Your task to perform on an android device: snooze an email in the gmail app Image 0: 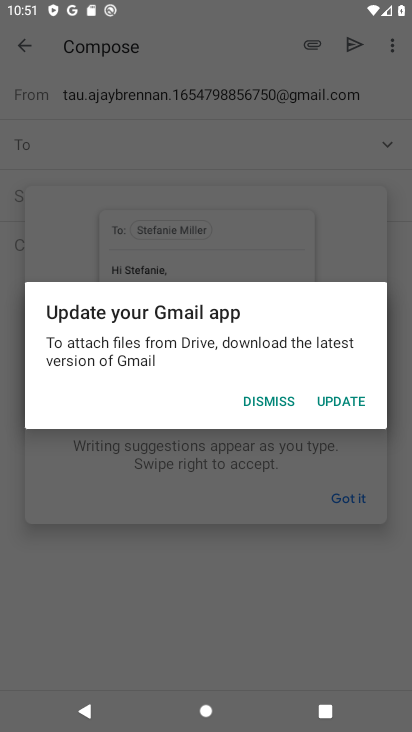
Step 0: press home button
Your task to perform on an android device: snooze an email in the gmail app Image 1: 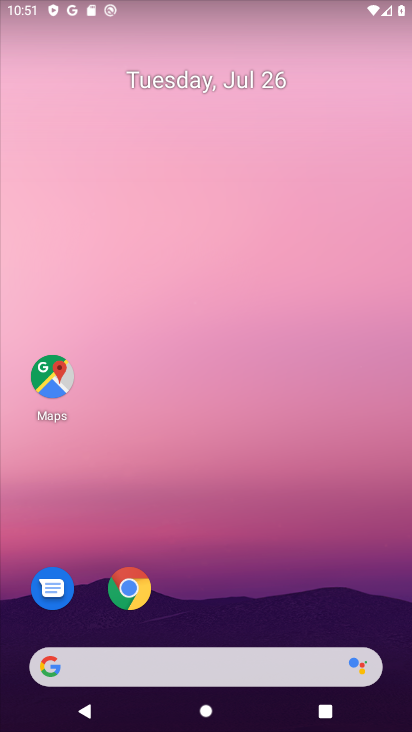
Step 1: drag from (222, 607) to (238, 1)
Your task to perform on an android device: snooze an email in the gmail app Image 2: 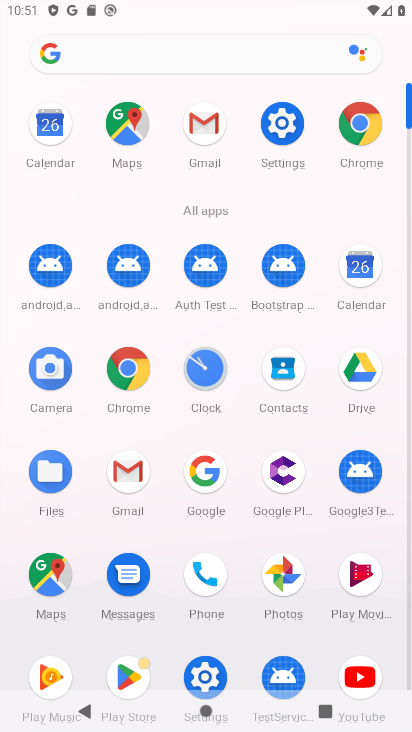
Step 2: click (123, 458)
Your task to perform on an android device: snooze an email in the gmail app Image 3: 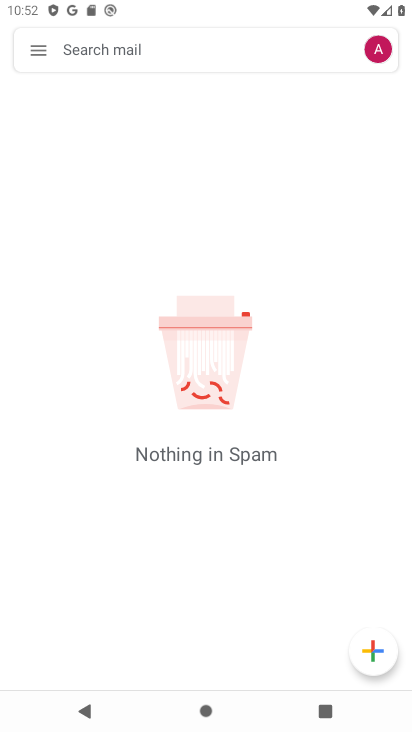
Step 3: click (30, 41)
Your task to perform on an android device: snooze an email in the gmail app Image 4: 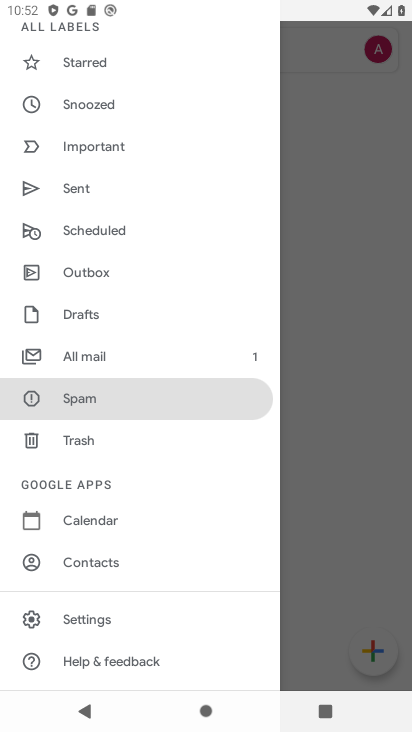
Step 4: drag from (158, 137) to (155, 526)
Your task to perform on an android device: snooze an email in the gmail app Image 5: 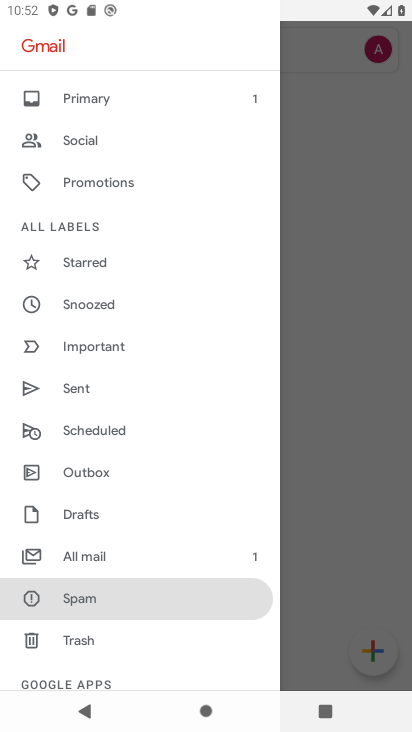
Step 5: click (351, 336)
Your task to perform on an android device: snooze an email in the gmail app Image 6: 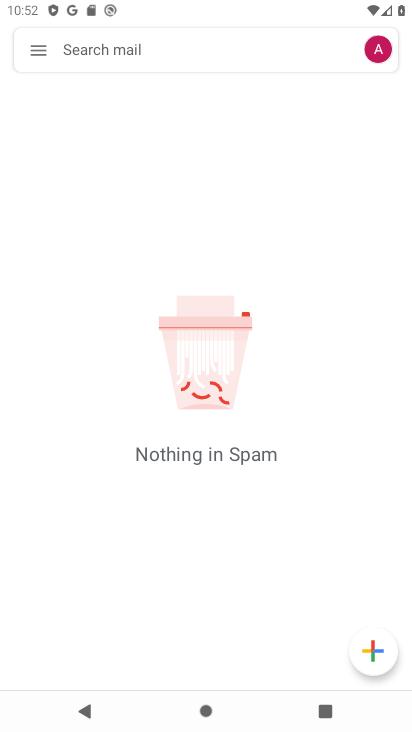
Step 6: click (31, 47)
Your task to perform on an android device: snooze an email in the gmail app Image 7: 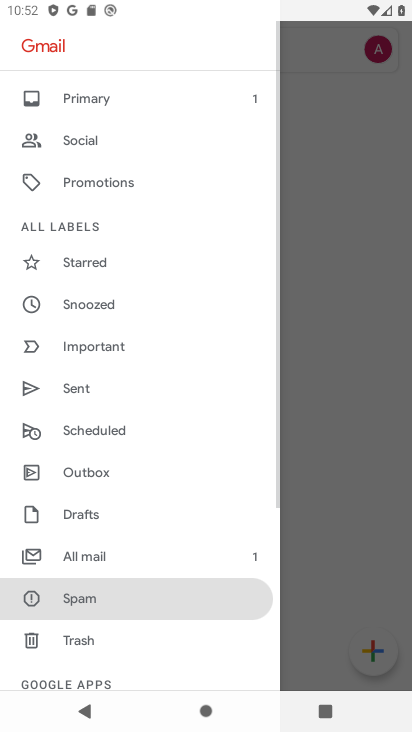
Step 7: click (88, 553)
Your task to perform on an android device: snooze an email in the gmail app Image 8: 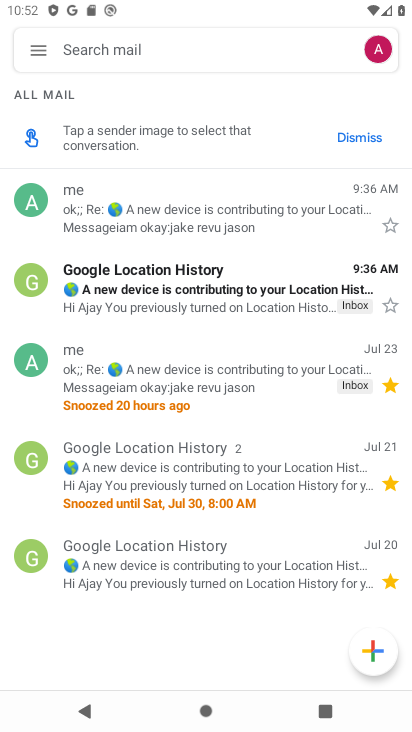
Step 8: click (28, 277)
Your task to perform on an android device: snooze an email in the gmail app Image 9: 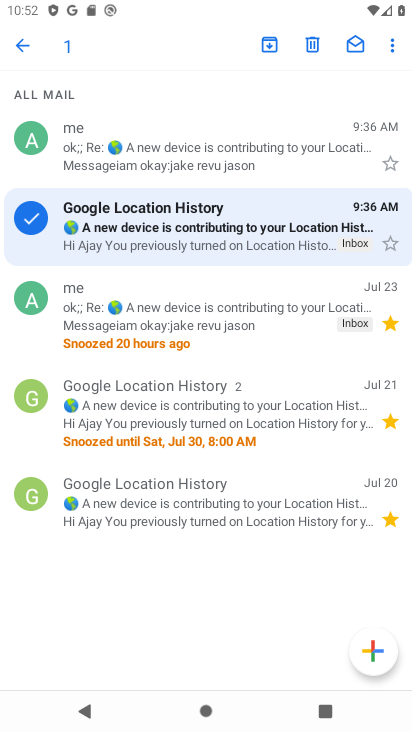
Step 9: click (390, 44)
Your task to perform on an android device: snooze an email in the gmail app Image 10: 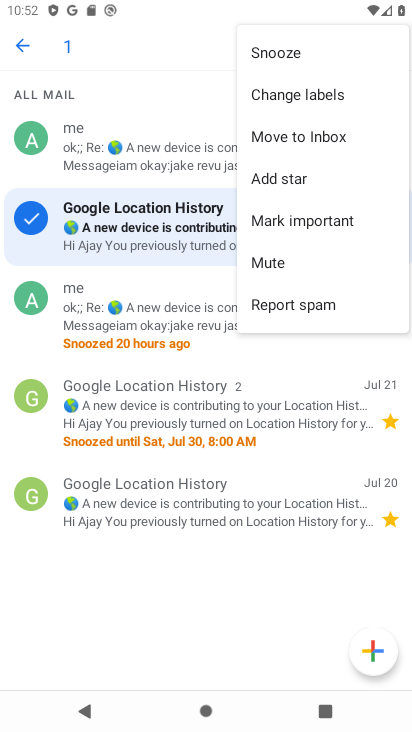
Step 10: click (303, 49)
Your task to perform on an android device: snooze an email in the gmail app Image 11: 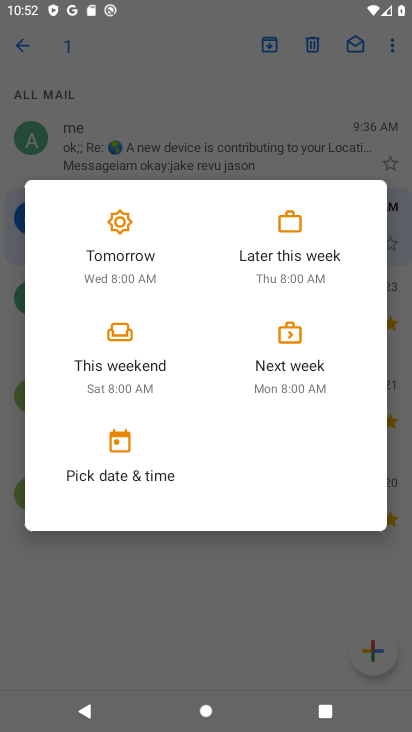
Step 11: click (298, 228)
Your task to perform on an android device: snooze an email in the gmail app Image 12: 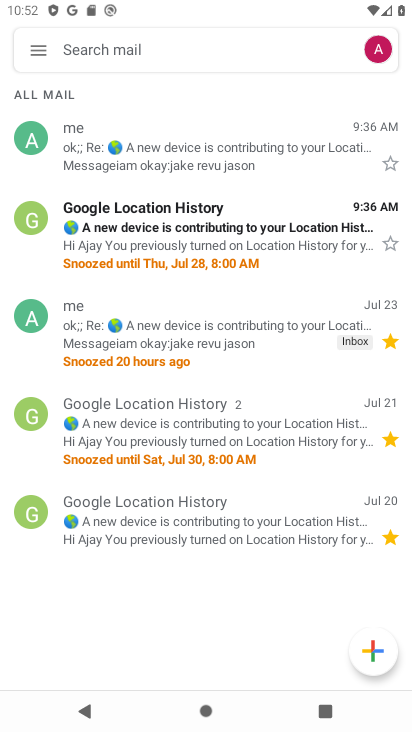
Step 12: task complete